Your task to perform on an android device: Go to Android settings Image 0: 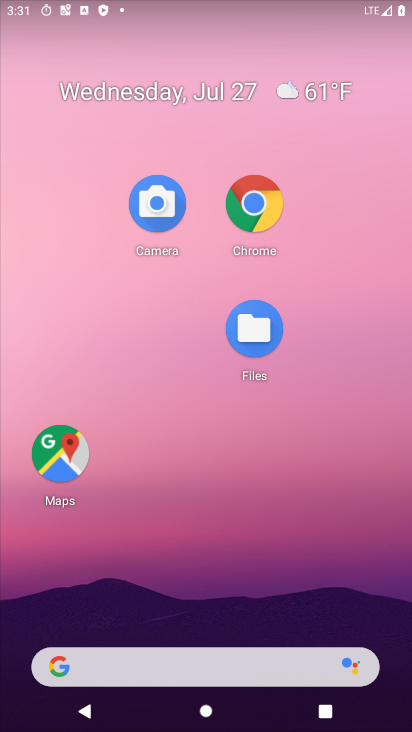
Step 0: drag from (201, 593) to (267, 96)
Your task to perform on an android device: Go to Android settings Image 1: 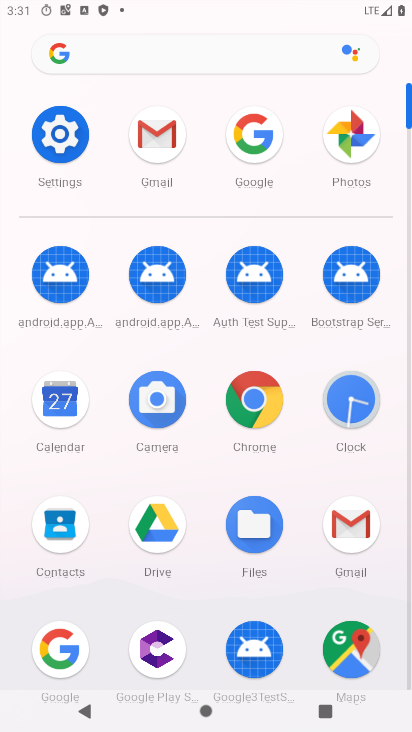
Step 1: click (52, 156)
Your task to perform on an android device: Go to Android settings Image 2: 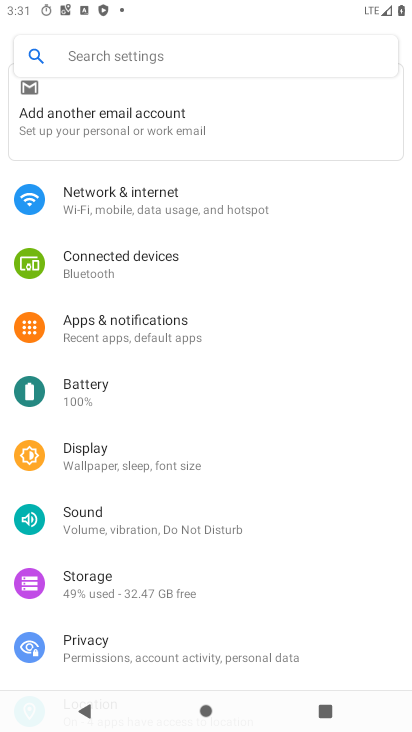
Step 2: task complete